Your task to perform on an android device: What's the weather going to be this weekend? Image 0: 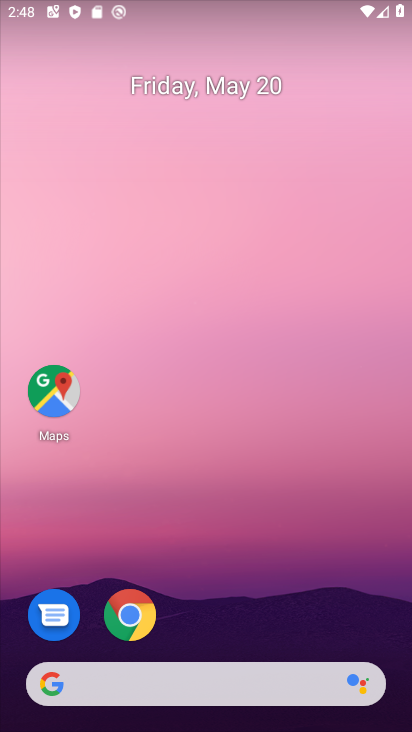
Step 0: click (231, 185)
Your task to perform on an android device: What's the weather going to be this weekend? Image 1: 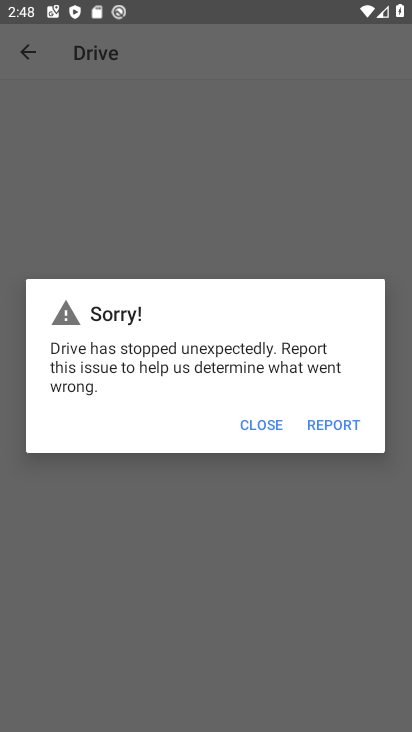
Step 1: press home button
Your task to perform on an android device: What's the weather going to be this weekend? Image 2: 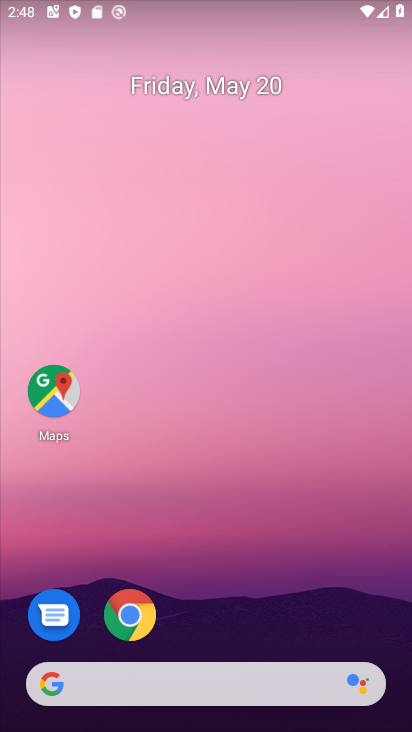
Step 2: drag from (229, 618) to (234, 263)
Your task to perform on an android device: What's the weather going to be this weekend? Image 3: 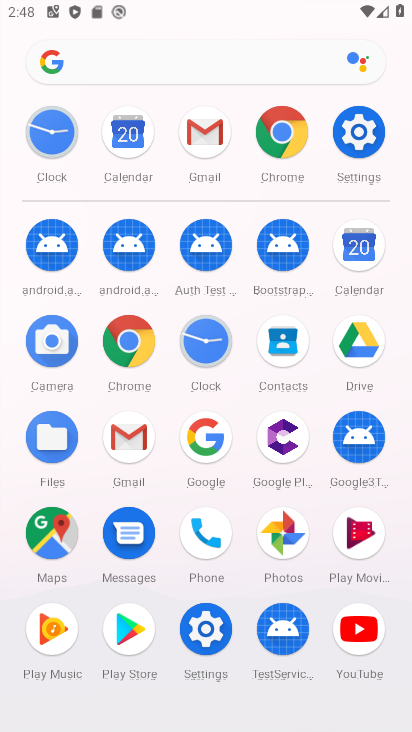
Step 3: click (197, 441)
Your task to perform on an android device: What's the weather going to be this weekend? Image 4: 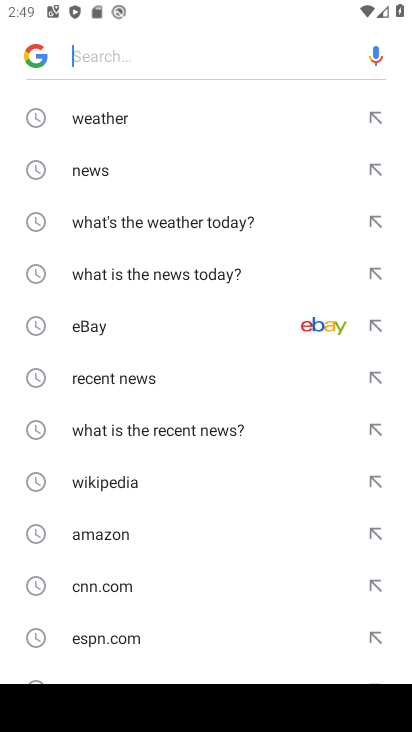
Step 4: click (213, 43)
Your task to perform on an android device: What's the weather going to be this weekend? Image 5: 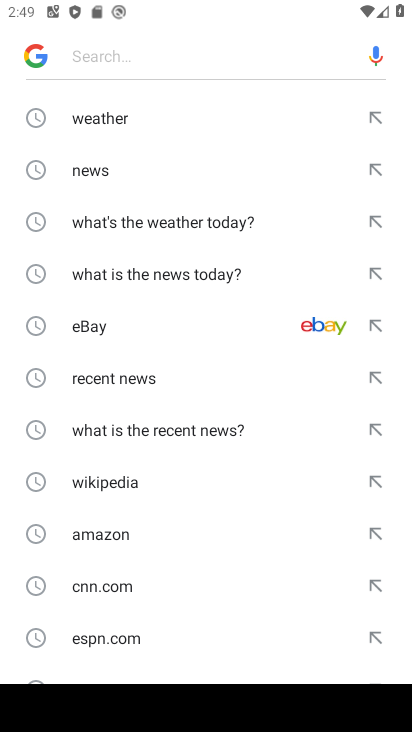
Step 5: type "What's the weather going to be this weekend?"
Your task to perform on an android device: What's the weather going to be this weekend? Image 6: 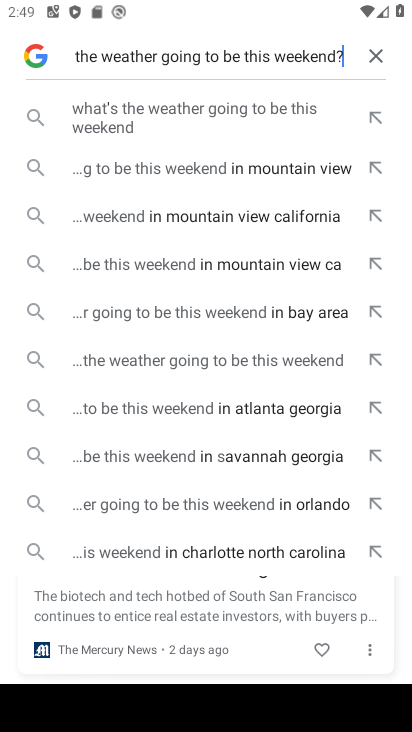
Step 6: click (256, 104)
Your task to perform on an android device: What's the weather going to be this weekend? Image 7: 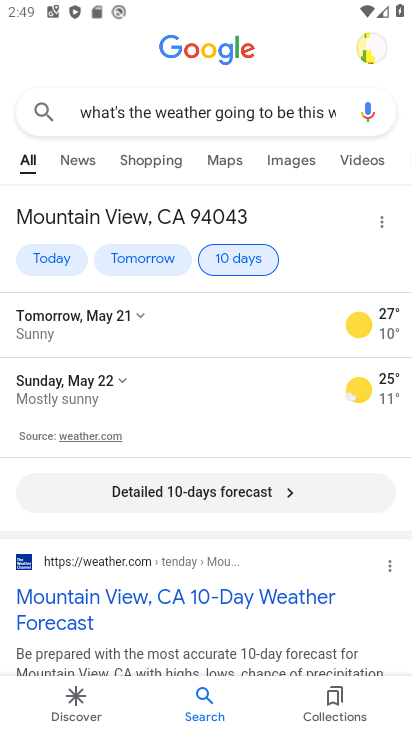
Step 7: task complete